Your task to perform on an android device: Is it going to rain tomorrow? Image 0: 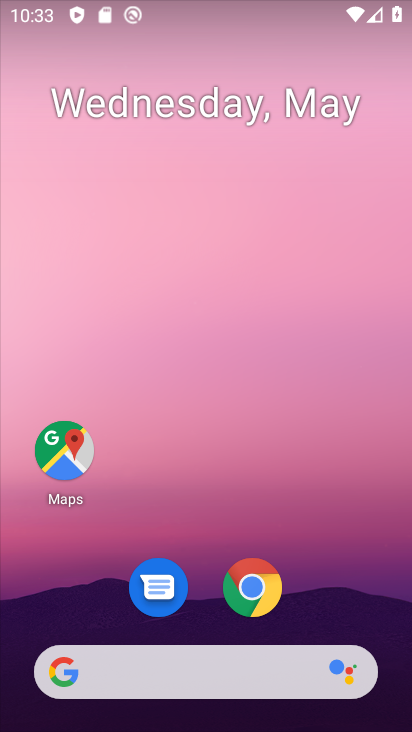
Step 0: click (168, 660)
Your task to perform on an android device: Is it going to rain tomorrow? Image 1: 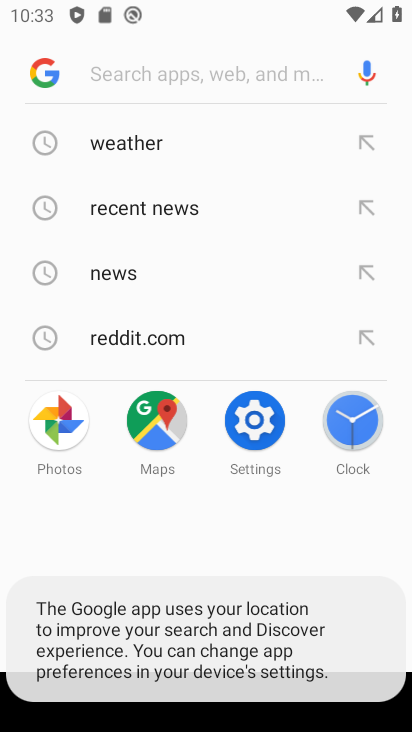
Step 1: click (130, 140)
Your task to perform on an android device: Is it going to rain tomorrow? Image 2: 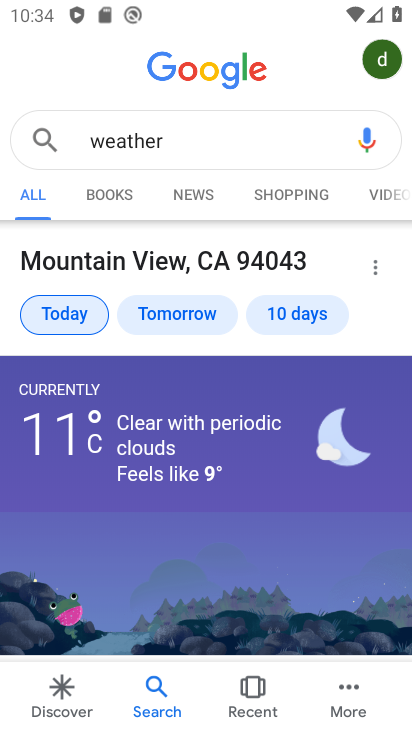
Step 2: click (185, 316)
Your task to perform on an android device: Is it going to rain tomorrow? Image 3: 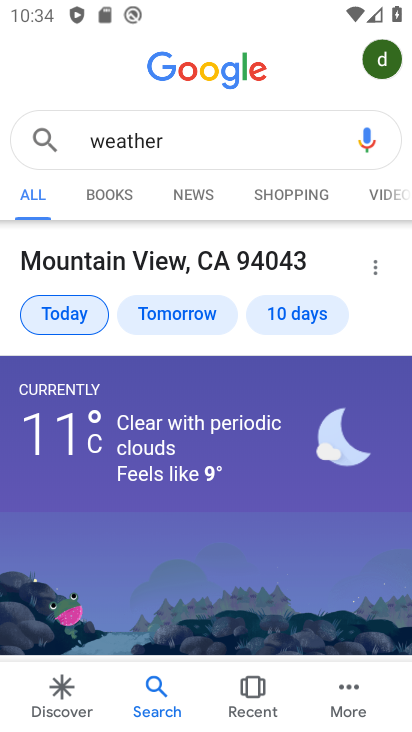
Step 3: click (182, 315)
Your task to perform on an android device: Is it going to rain tomorrow? Image 4: 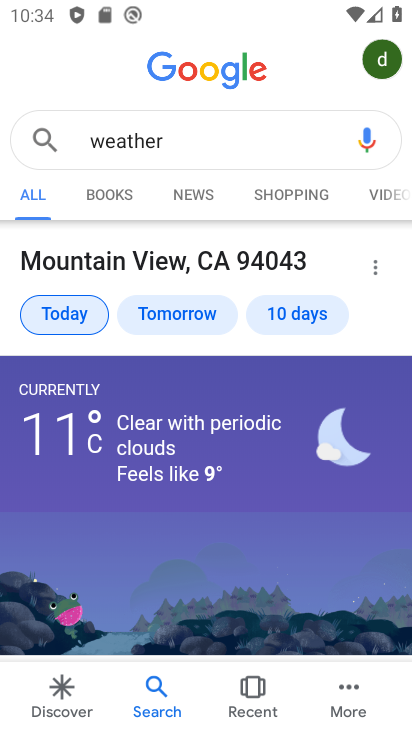
Step 4: click (184, 315)
Your task to perform on an android device: Is it going to rain tomorrow? Image 5: 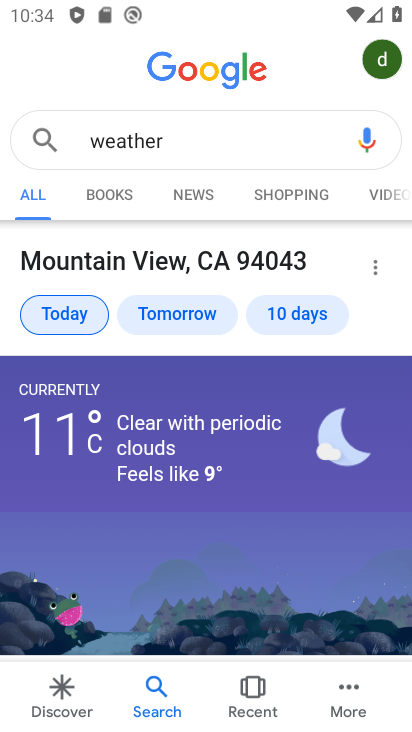
Step 5: task complete